Your task to perform on an android device: Open Youtube and go to "Your channel" Image 0: 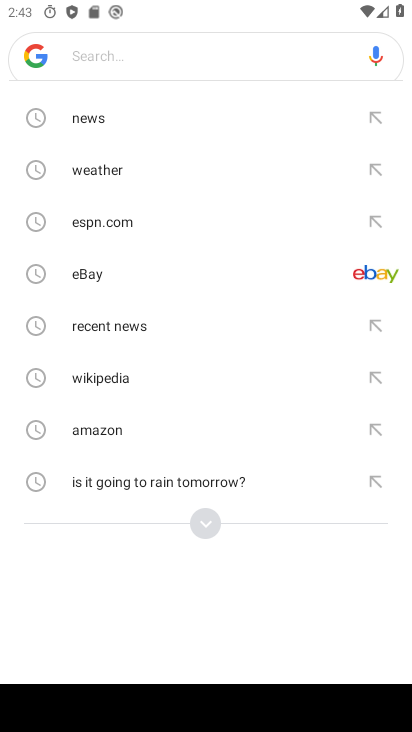
Step 0: press home button
Your task to perform on an android device: Open Youtube and go to "Your channel" Image 1: 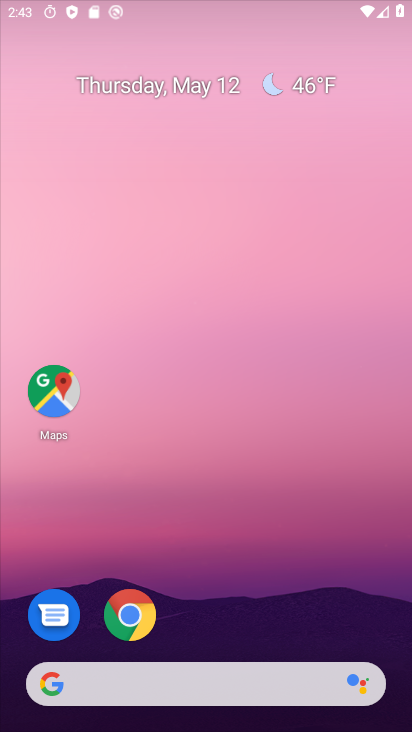
Step 1: drag from (240, 582) to (259, 61)
Your task to perform on an android device: Open Youtube and go to "Your channel" Image 2: 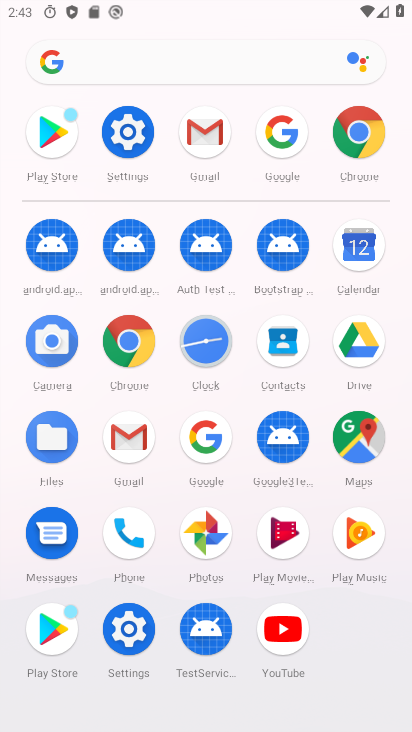
Step 2: click (280, 612)
Your task to perform on an android device: Open Youtube and go to "Your channel" Image 3: 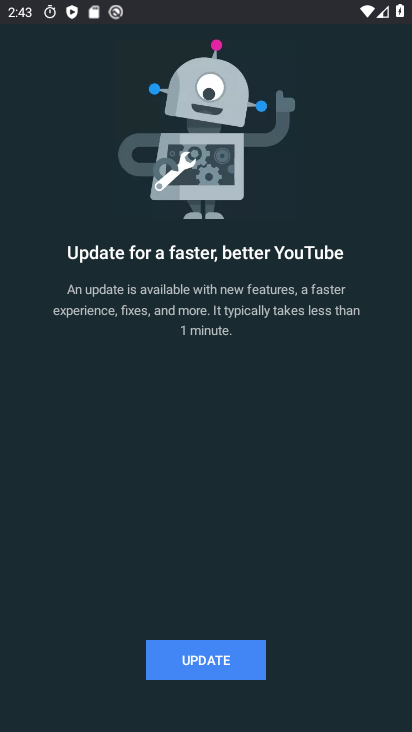
Step 3: click (204, 662)
Your task to perform on an android device: Open Youtube and go to "Your channel" Image 4: 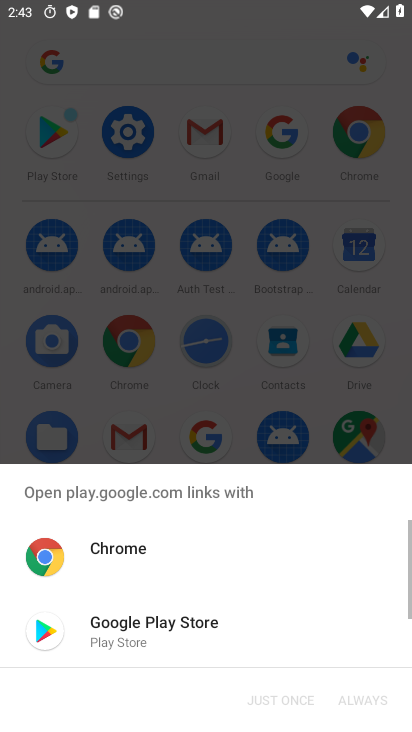
Step 4: click (140, 627)
Your task to perform on an android device: Open Youtube and go to "Your channel" Image 5: 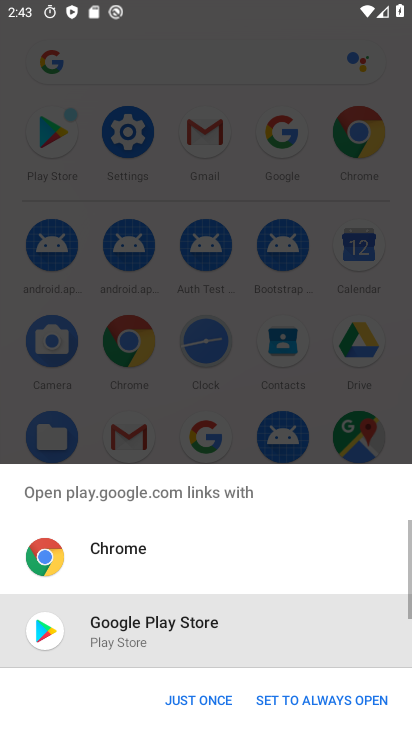
Step 5: click (197, 682)
Your task to perform on an android device: Open Youtube and go to "Your channel" Image 6: 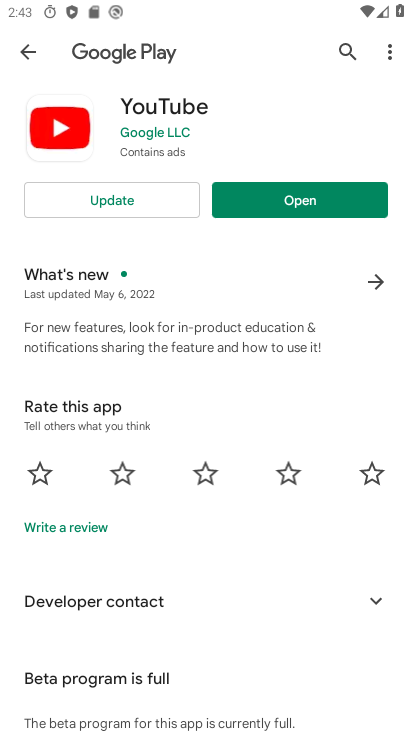
Step 6: click (116, 202)
Your task to perform on an android device: Open Youtube and go to "Your channel" Image 7: 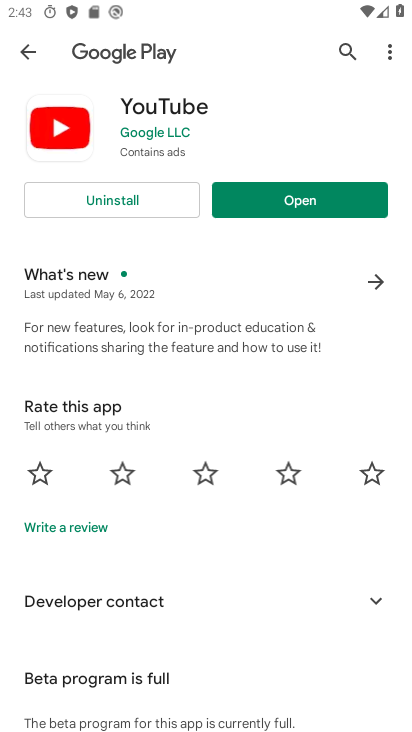
Step 7: click (298, 197)
Your task to perform on an android device: Open Youtube and go to "Your channel" Image 8: 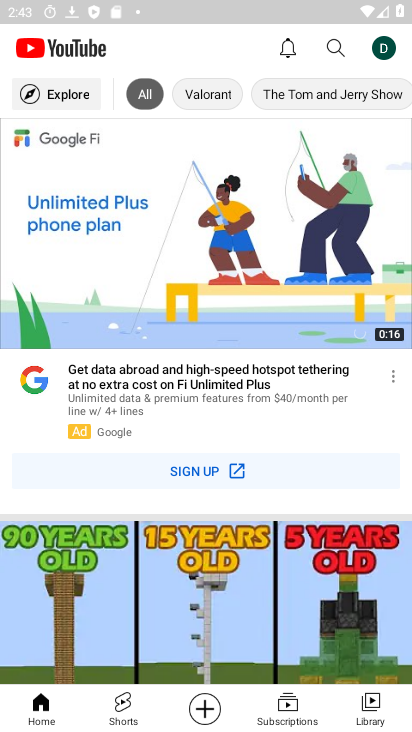
Step 8: click (379, 50)
Your task to perform on an android device: Open Youtube and go to "Your channel" Image 9: 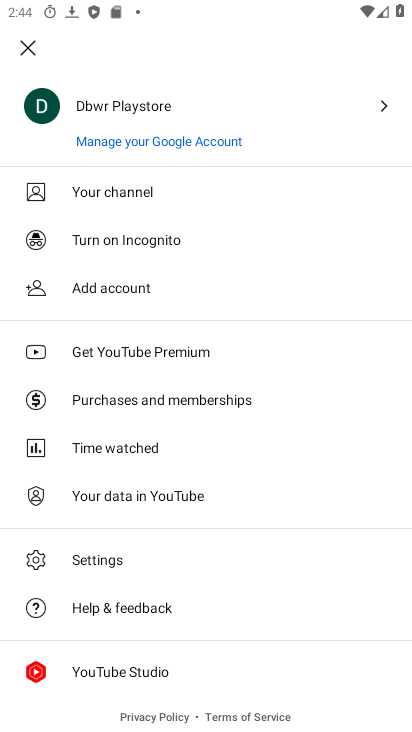
Step 9: click (158, 182)
Your task to perform on an android device: Open Youtube and go to "Your channel" Image 10: 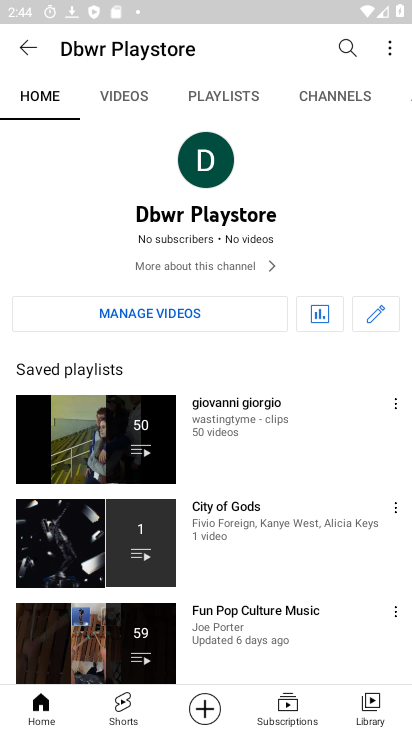
Step 10: task complete